Your task to perform on an android device: toggle data saver in the chrome app Image 0: 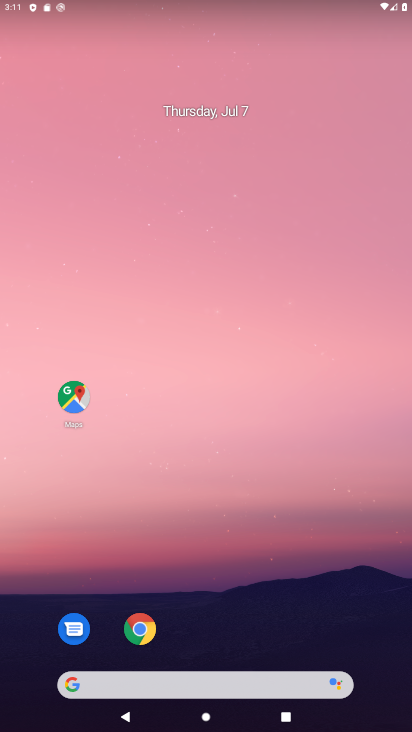
Step 0: click (151, 633)
Your task to perform on an android device: toggle data saver in the chrome app Image 1: 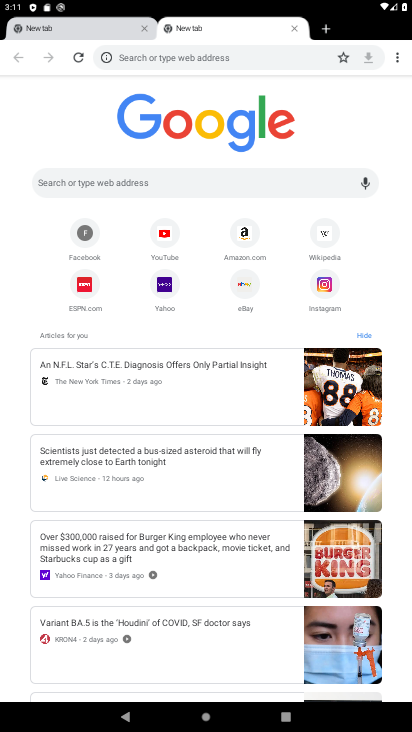
Step 1: click (399, 56)
Your task to perform on an android device: toggle data saver in the chrome app Image 2: 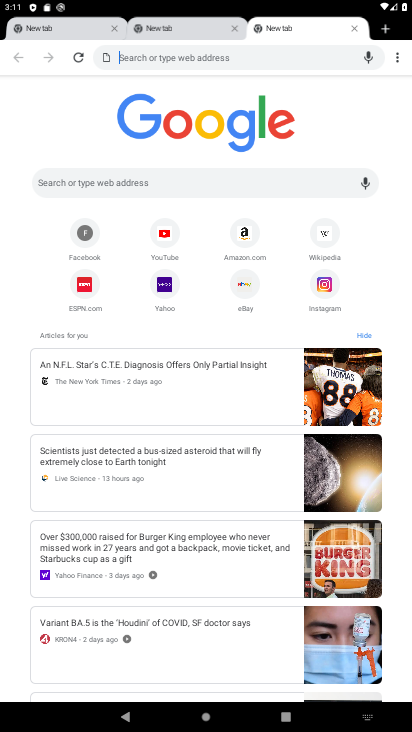
Step 2: click (394, 55)
Your task to perform on an android device: toggle data saver in the chrome app Image 3: 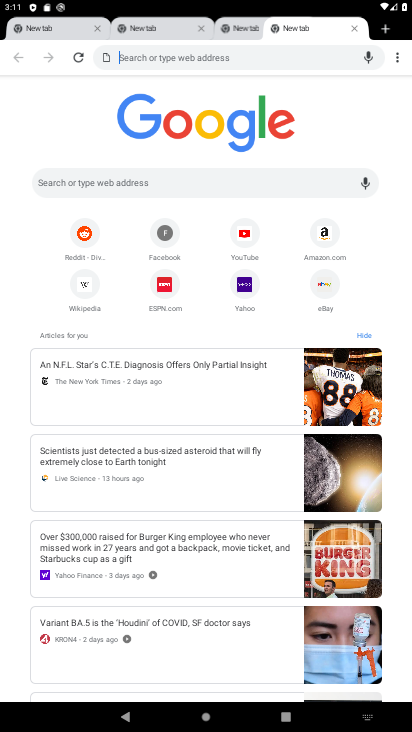
Step 3: click (397, 55)
Your task to perform on an android device: toggle data saver in the chrome app Image 4: 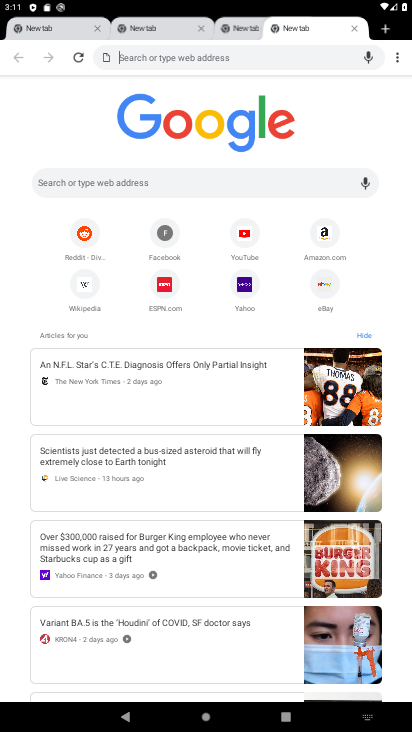
Step 4: click (395, 56)
Your task to perform on an android device: toggle data saver in the chrome app Image 5: 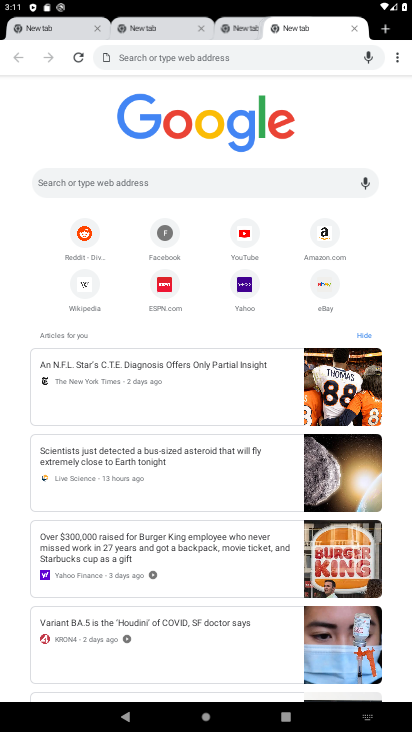
Step 5: click (388, 54)
Your task to perform on an android device: toggle data saver in the chrome app Image 6: 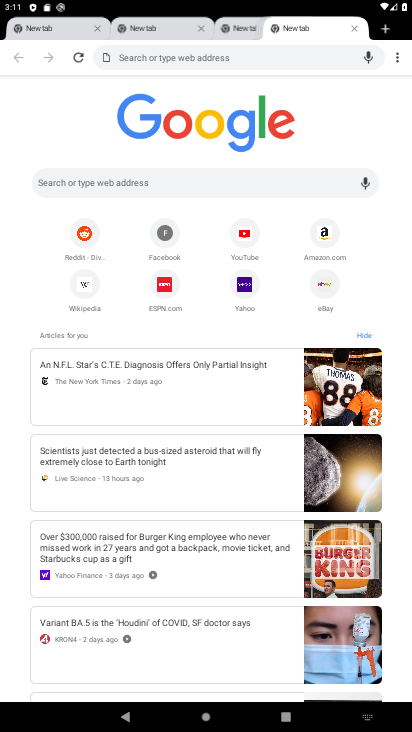
Step 6: task complete